Your task to perform on an android device: Open calendar and show me the first week of next month Image 0: 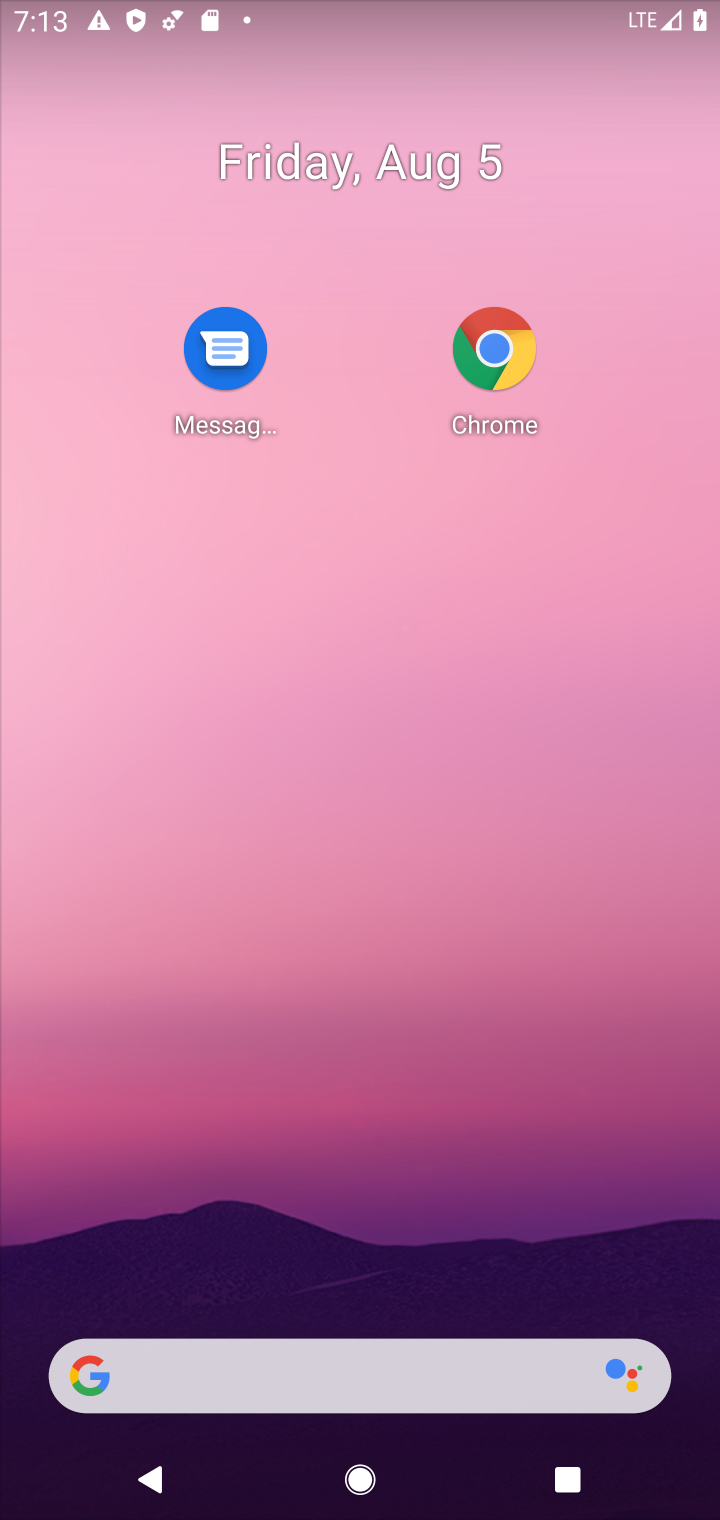
Step 0: press home button
Your task to perform on an android device: Open calendar and show me the first week of next month Image 1: 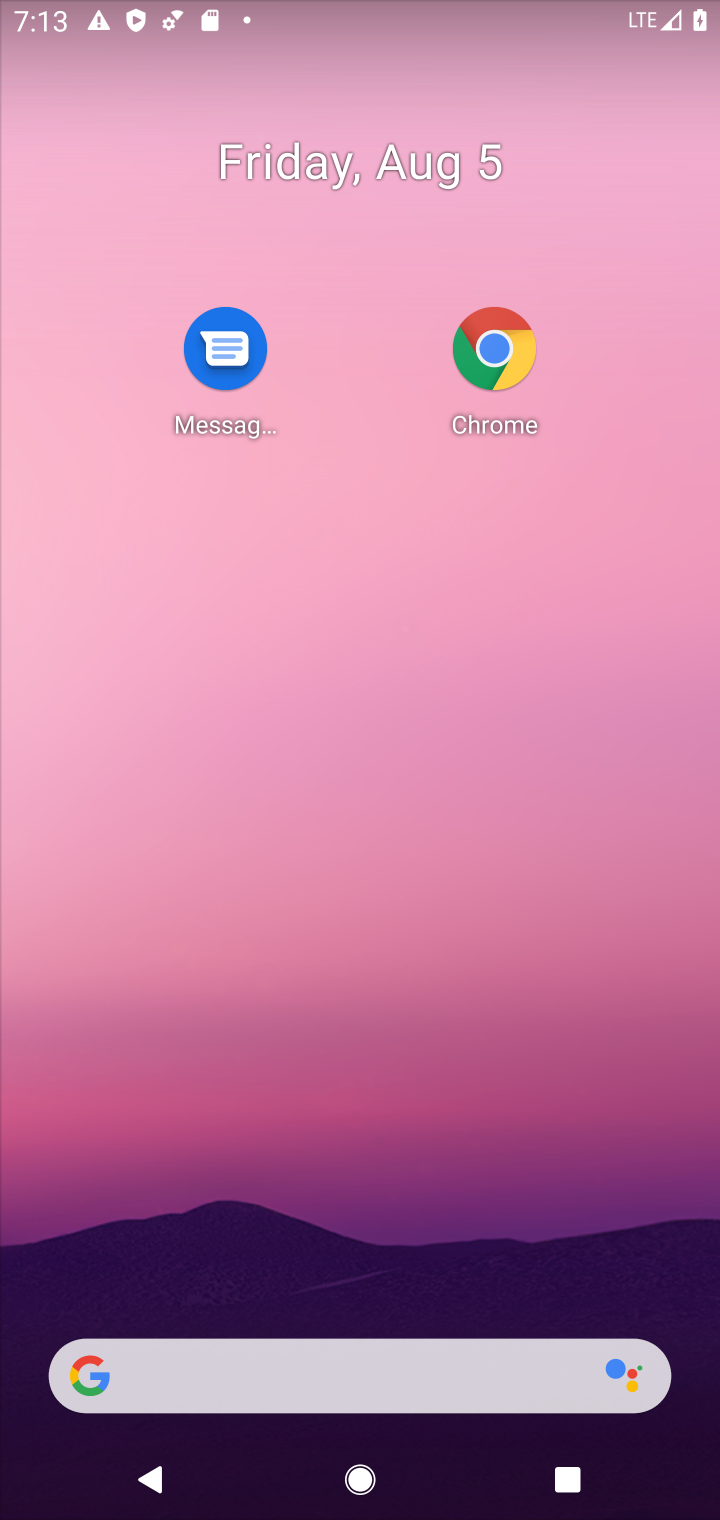
Step 1: drag from (467, 1419) to (357, 556)
Your task to perform on an android device: Open calendar and show me the first week of next month Image 2: 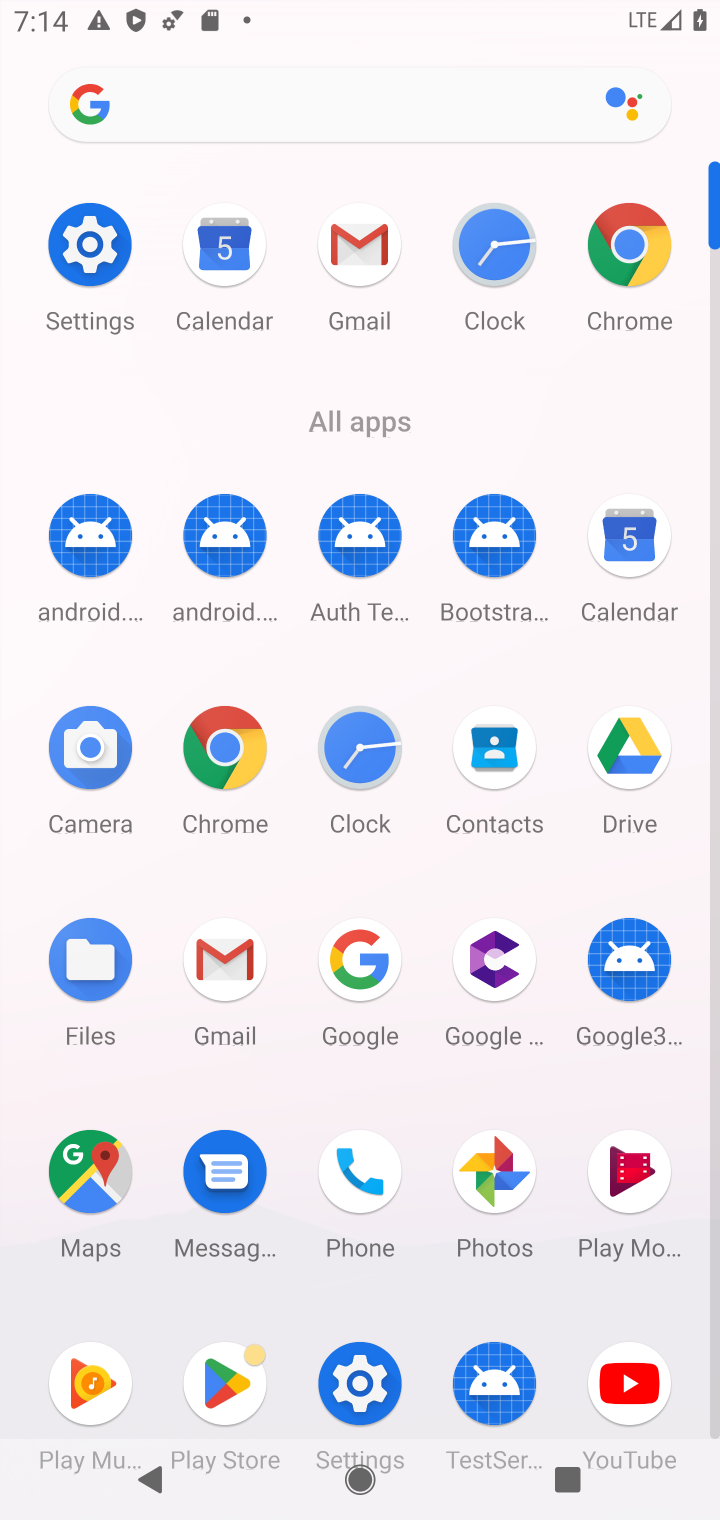
Step 2: click (631, 576)
Your task to perform on an android device: Open calendar and show me the first week of next month Image 3: 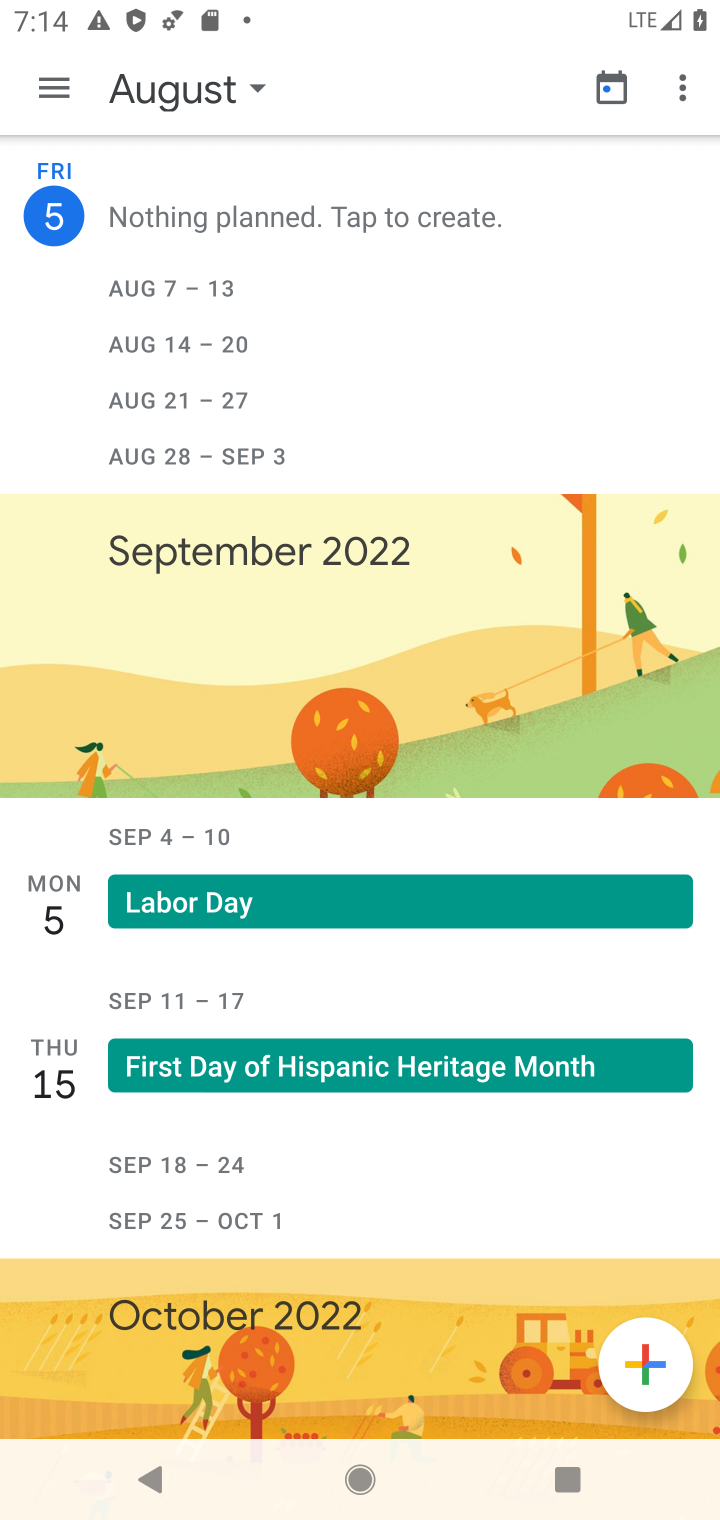
Step 3: click (36, 71)
Your task to perform on an android device: Open calendar and show me the first week of next month Image 4: 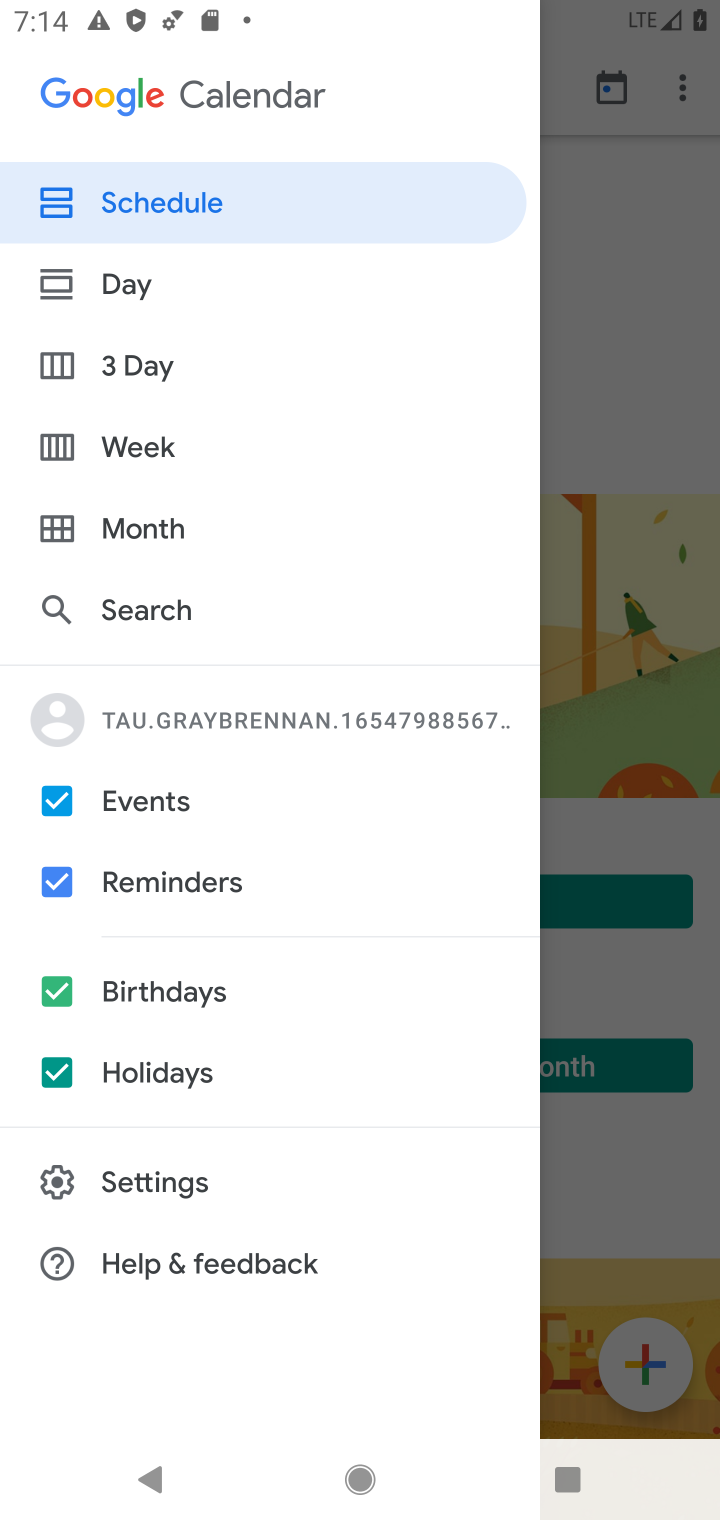
Step 4: click (176, 526)
Your task to perform on an android device: Open calendar and show me the first week of next month Image 5: 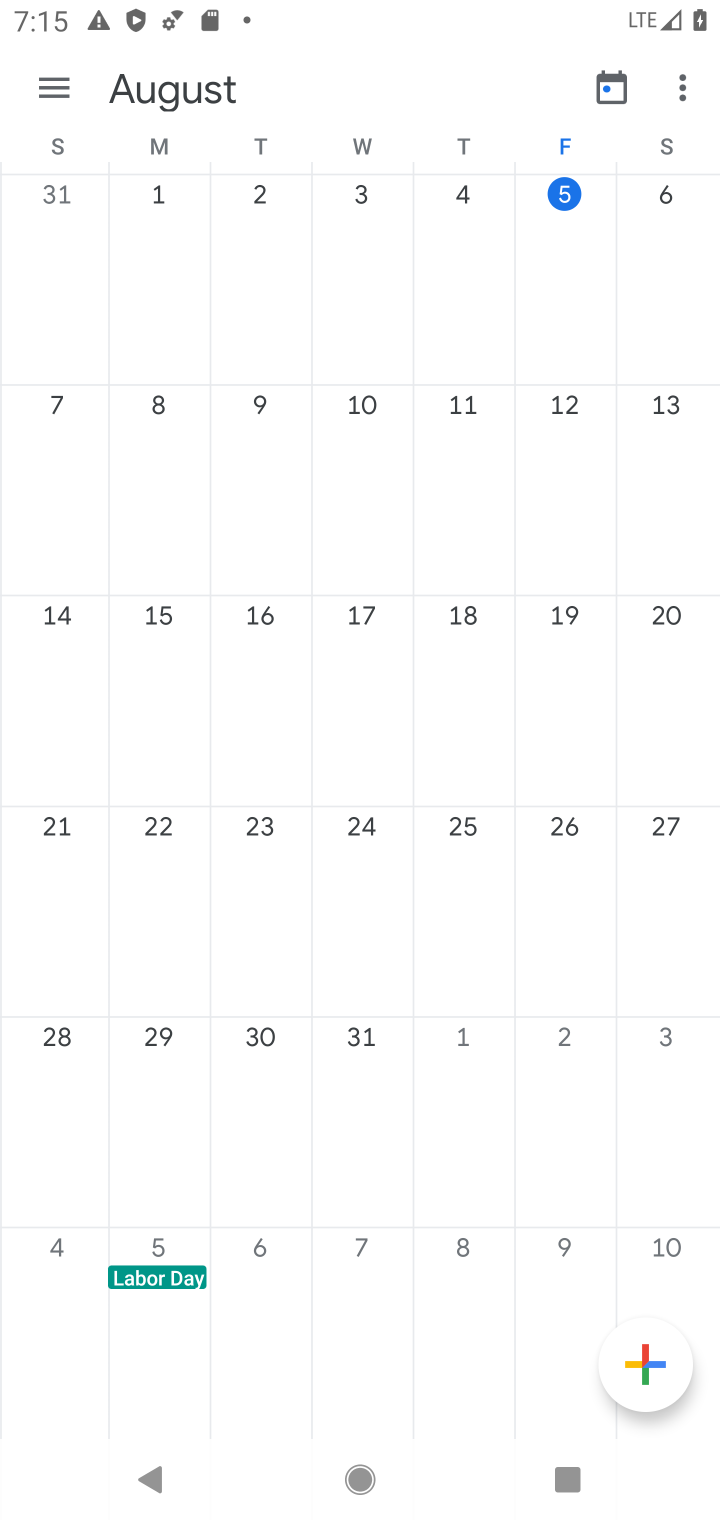
Step 5: drag from (675, 689) to (15, 511)
Your task to perform on an android device: Open calendar and show me the first week of next month Image 6: 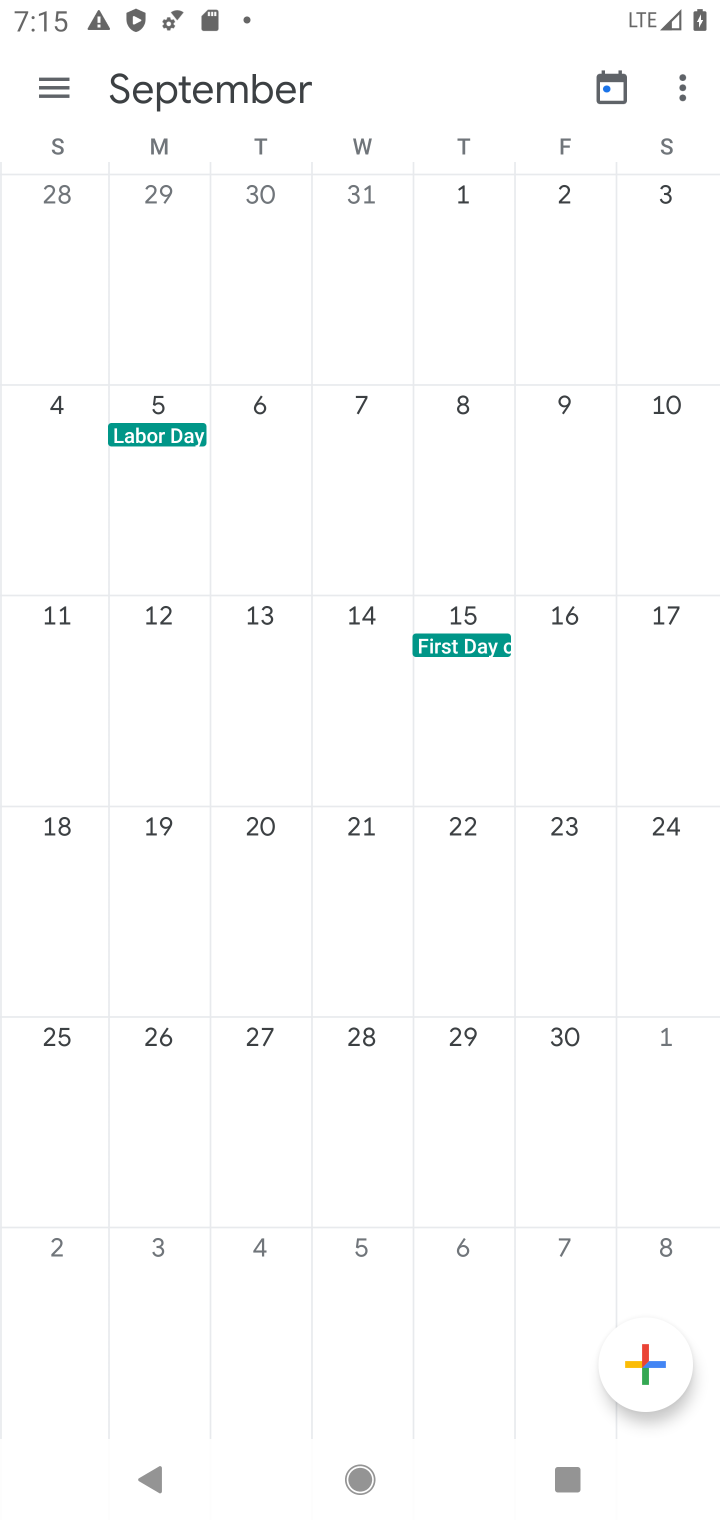
Step 6: click (145, 484)
Your task to perform on an android device: Open calendar and show me the first week of next month Image 7: 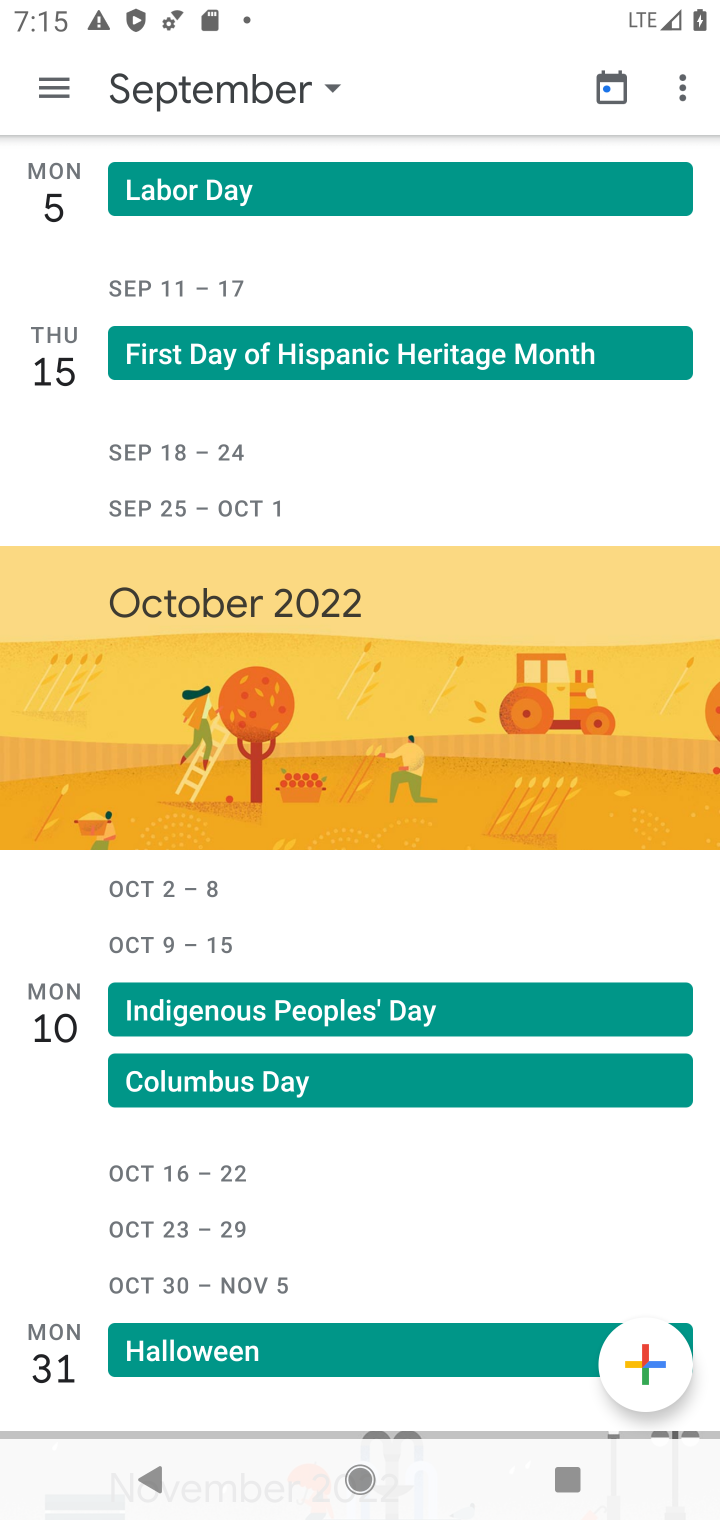
Step 7: task complete